Your task to perform on an android device: Go to display settings Image 0: 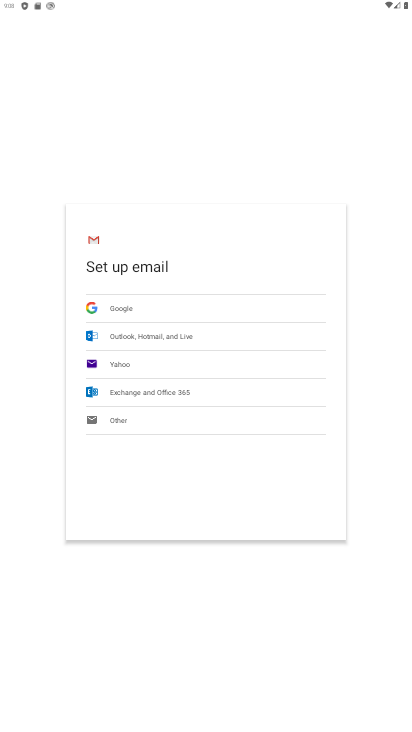
Step 0: press home button
Your task to perform on an android device: Go to display settings Image 1: 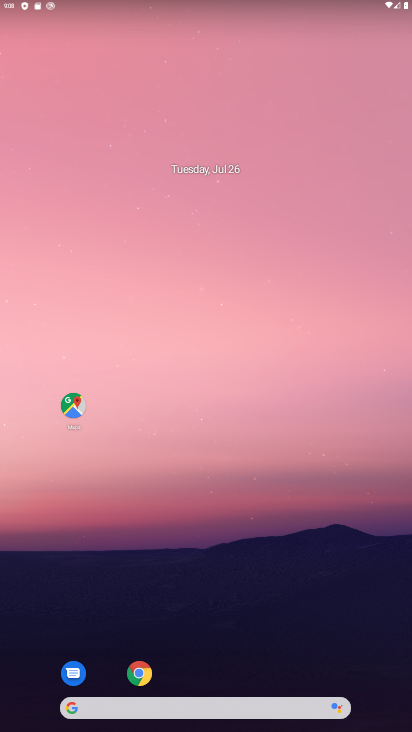
Step 1: drag from (170, 703) to (242, 59)
Your task to perform on an android device: Go to display settings Image 2: 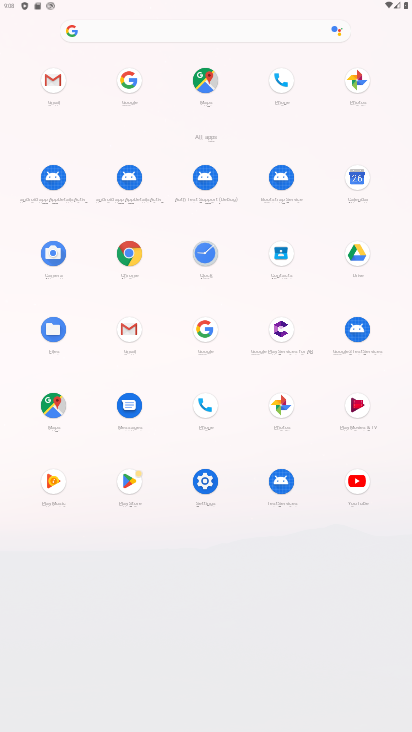
Step 2: click (203, 477)
Your task to perform on an android device: Go to display settings Image 3: 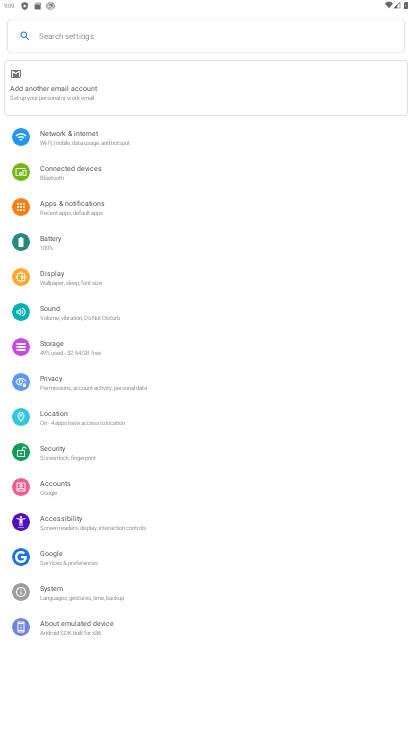
Step 3: click (63, 279)
Your task to perform on an android device: Go to display settings Image 4: 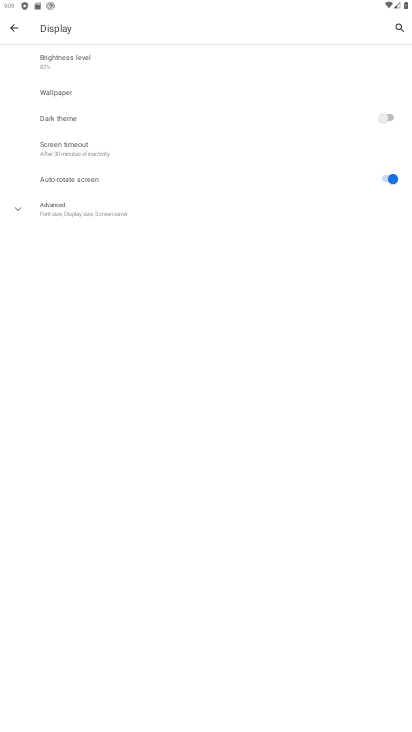
Step 4: task complete